Your task to perform on an android device: Open the stopwatch Image 0: 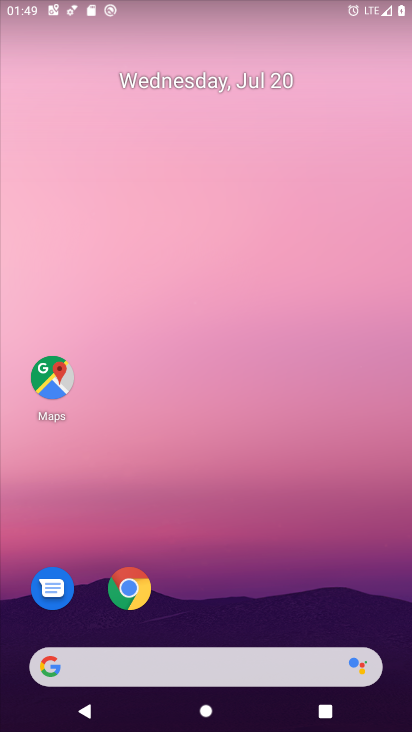
Step 0: drag from (226, 615) to (242, 166)
Your task to perform on an android device: Open the stopwatch Image 1: 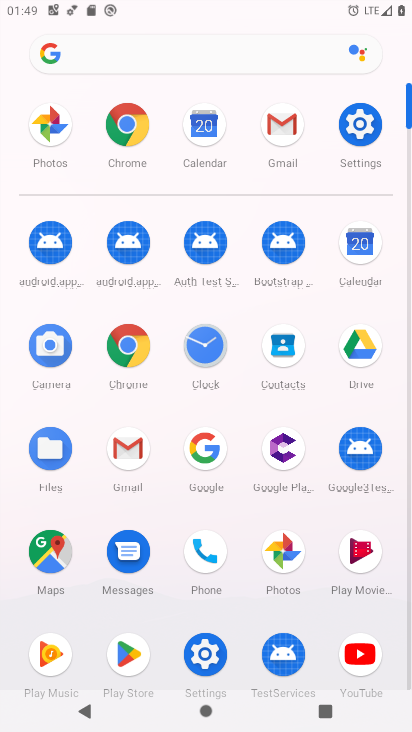
Step 1: click (209, 351)
Your task to perform on an android device: Open the stopwatch Image 2: 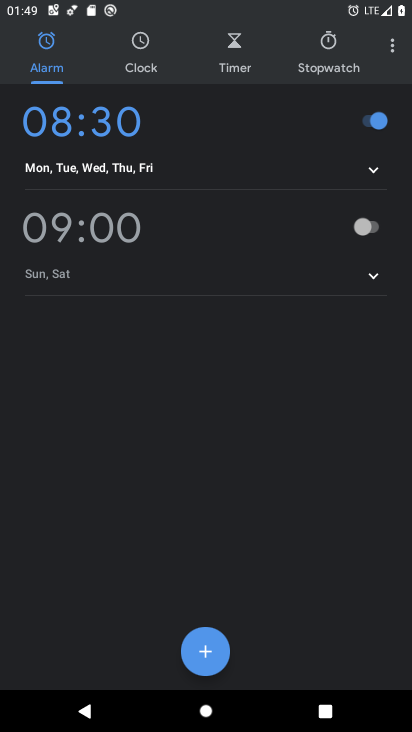
Step 2: click (326, 63)
Your task to perform on an android device: Open the stopwatch Image 3: 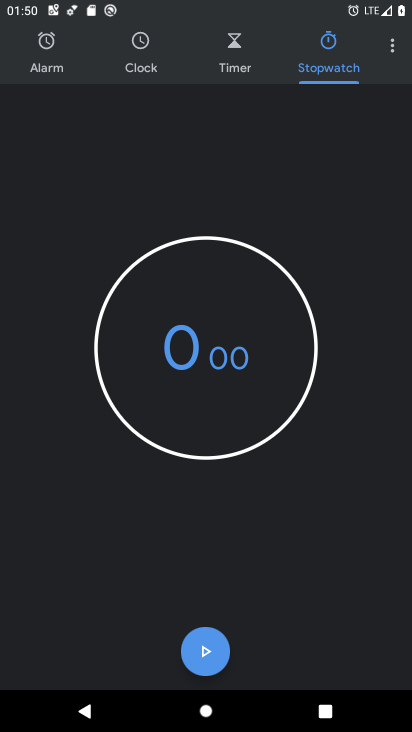
Step 3: task complete